Your task to perform on an android device: Go to Google Image 0: 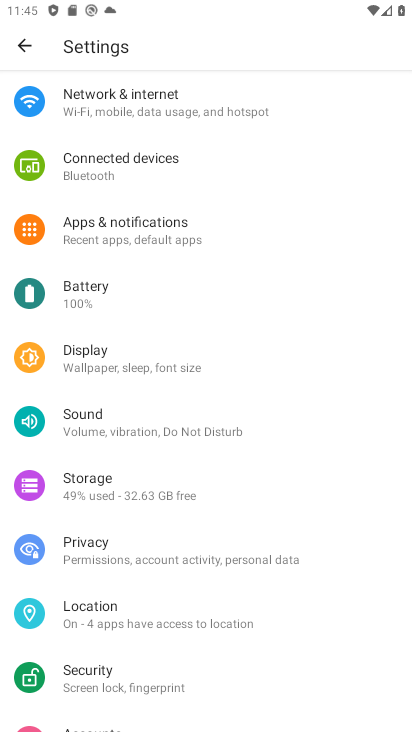
Step 0: press home button
Your task to perform on an android device: Go to Google Image 1: 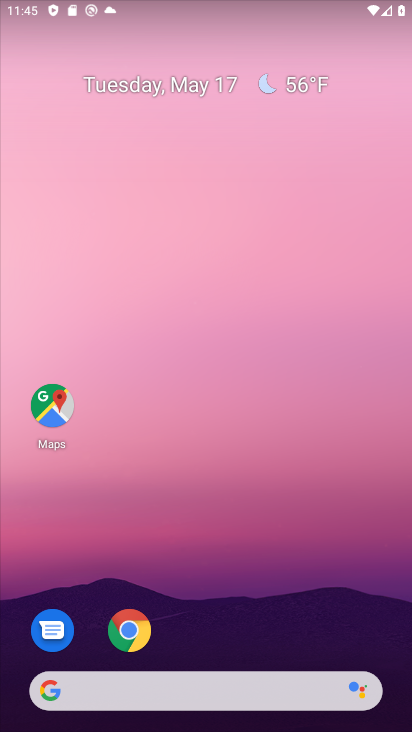
Step 1: drag from (217, 729) to (217, 159)
Your task to perform on an android device: Go to Google Image 2: 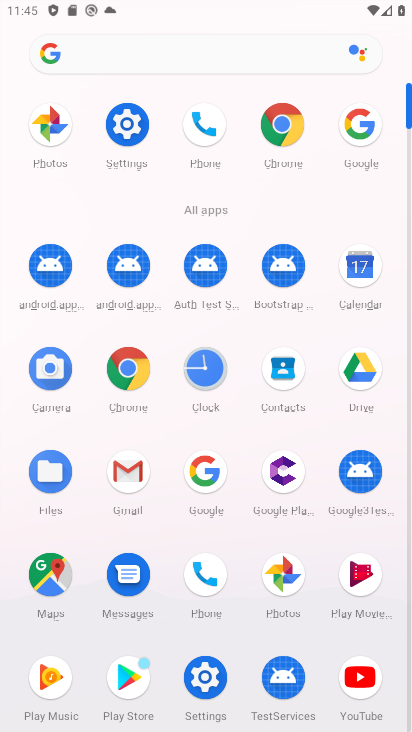
Step 2: click (208, 460)
Your task to perform on an android device: Go to Google Image 3: 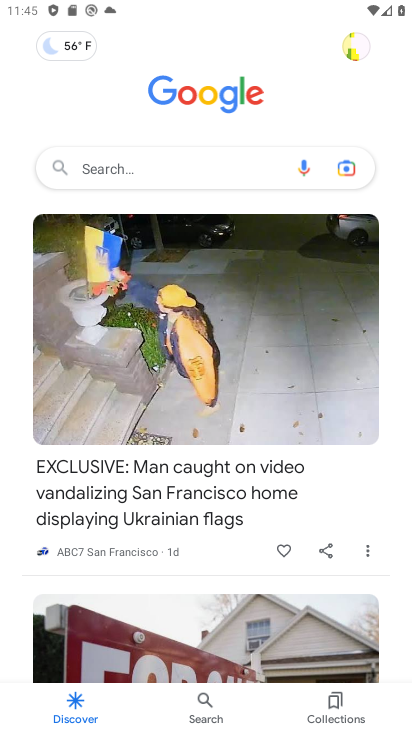
Step 3: task complete